Your task to perform on an android device: Find coffee shops on Maps Image 0: 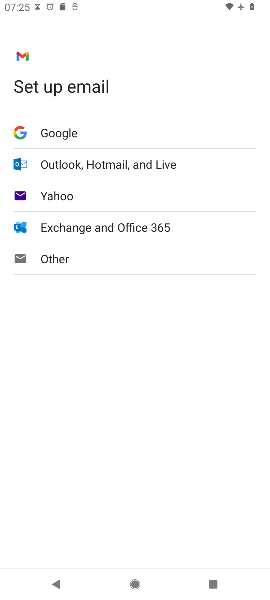
Step 0: press home button
Your task to perform on an android device: Find coffee shops on Maps Image 1: 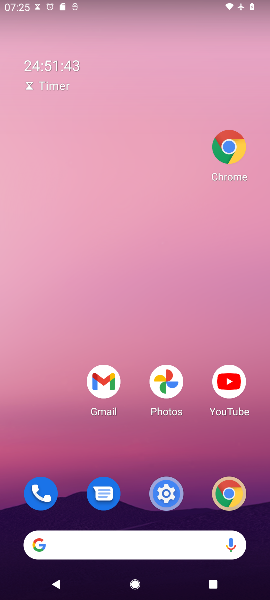
Step 1: drag from (140, 513) to (153, 174)
Your task to perform on an android device: Find coffee shops on Maps Image 2: 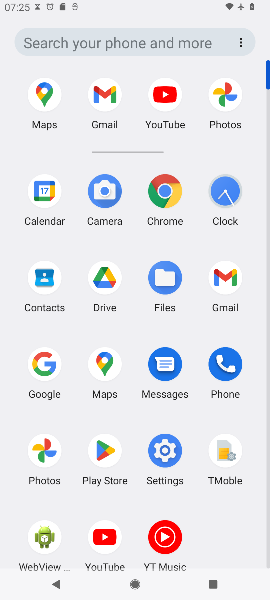
Step 2: click (47, 95)
Your task to perform on an android device: Find coffee shops on Maps Image 3: 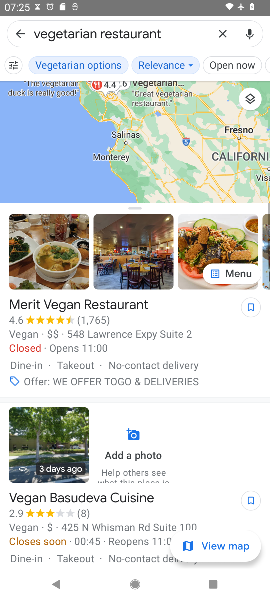
Step 3: click (222, 35)
Your task to perform on an android device: Find coffee shops on Maps Image 4: 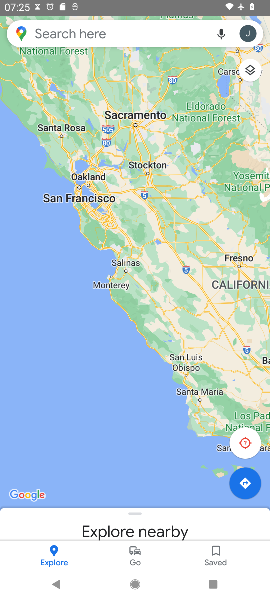
Step 4: type "coffee shops"
Your task to perform on an android device: Find coffee shops on Maps Image 5: 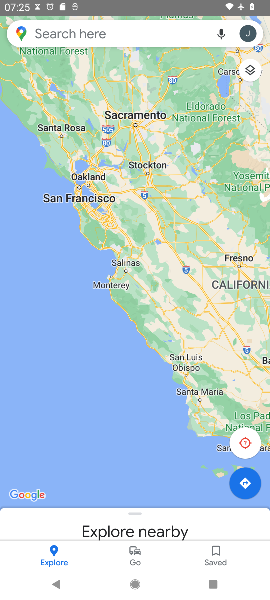
Step 5: click (109, 40)
Your task to perform on an android device: Find coffee shops on Maps Image 6: 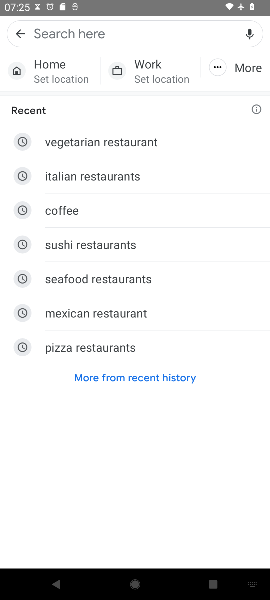
Step 6: type "coffee shops"
Your task to perform on an android device: Find coffee shops on Maps Image 7: 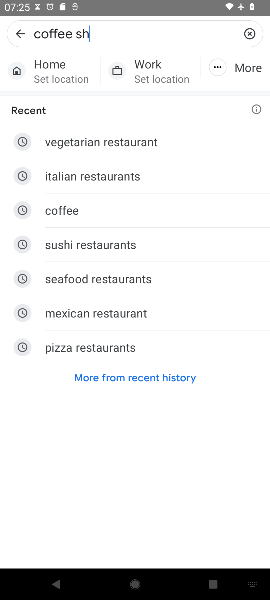
Step 7: press enter
Your task to perform on an android device: Find coffee shops on Maps Image 8: 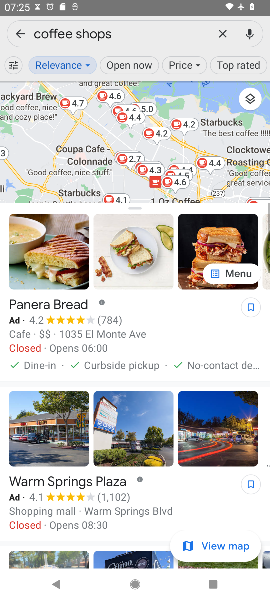
Step 8: task complete